Your task to perform on an android device: uninstall "Paramount+ | Peak Streaming" Image 0: 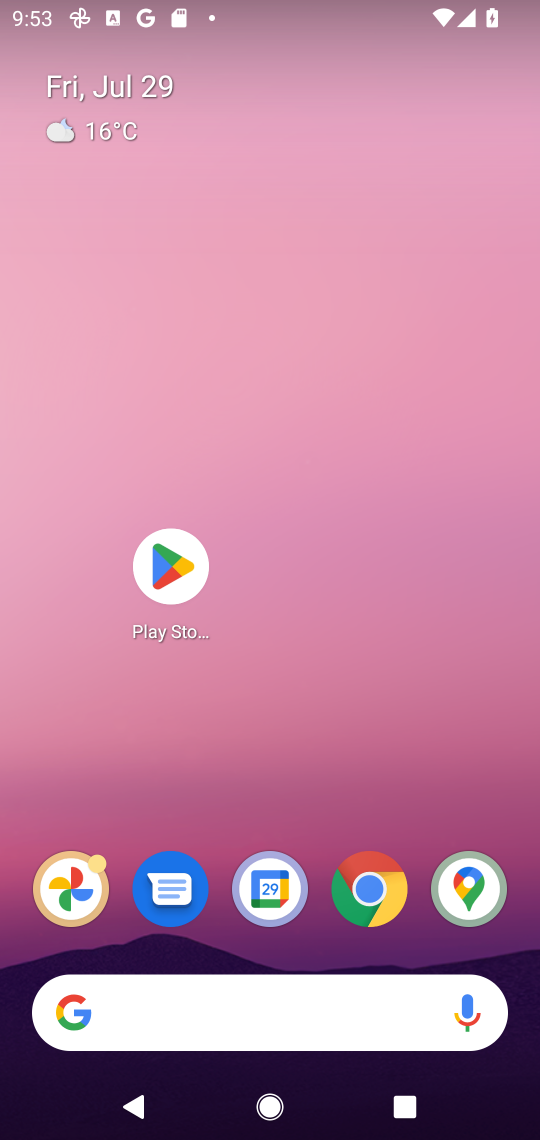
Step 0: press home button
Your task to perform on an android device: uninstall "Paramount+ | Peak Streaming" Image 1: 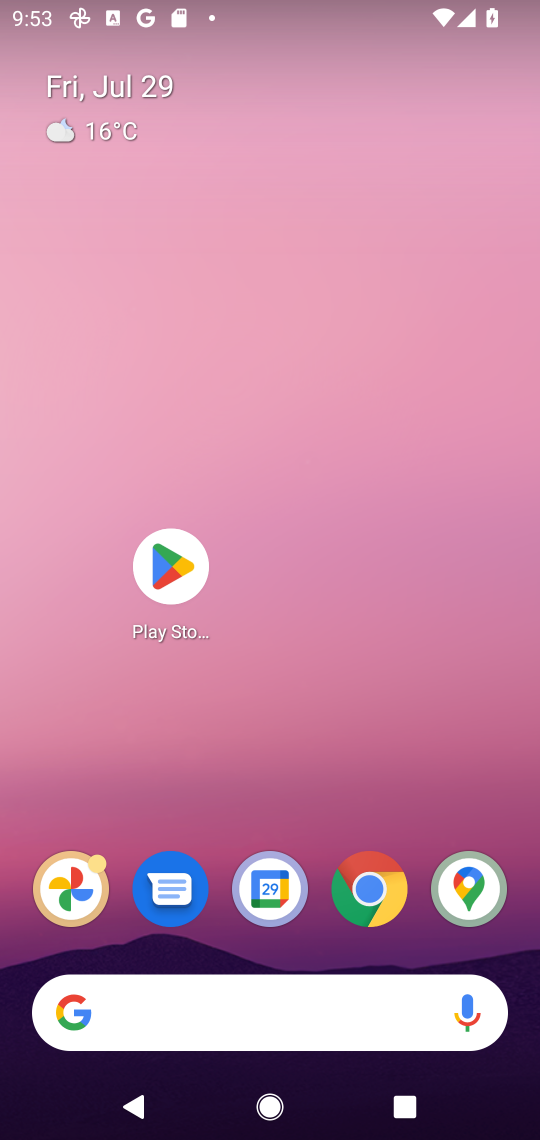
Step 1: click (175, 571)
Your task to perform on an android device: uninstall "Paramount+ | Peak Streaming" Image 2: 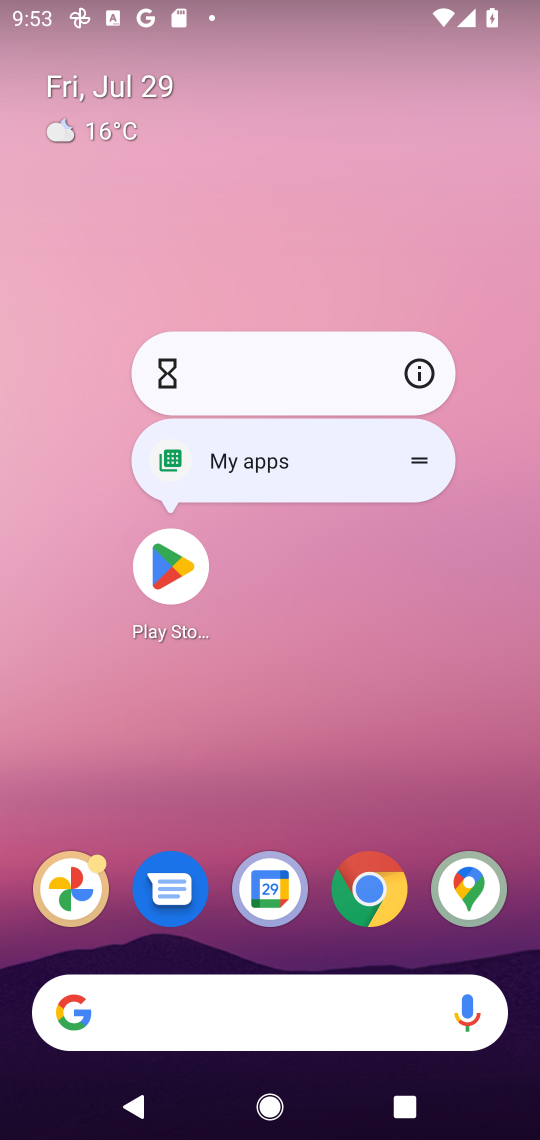
Step 2: click (160, 562)
Your task to perform on an android device: uninstall "Paramount+ | Peak Streaming" Image 3: 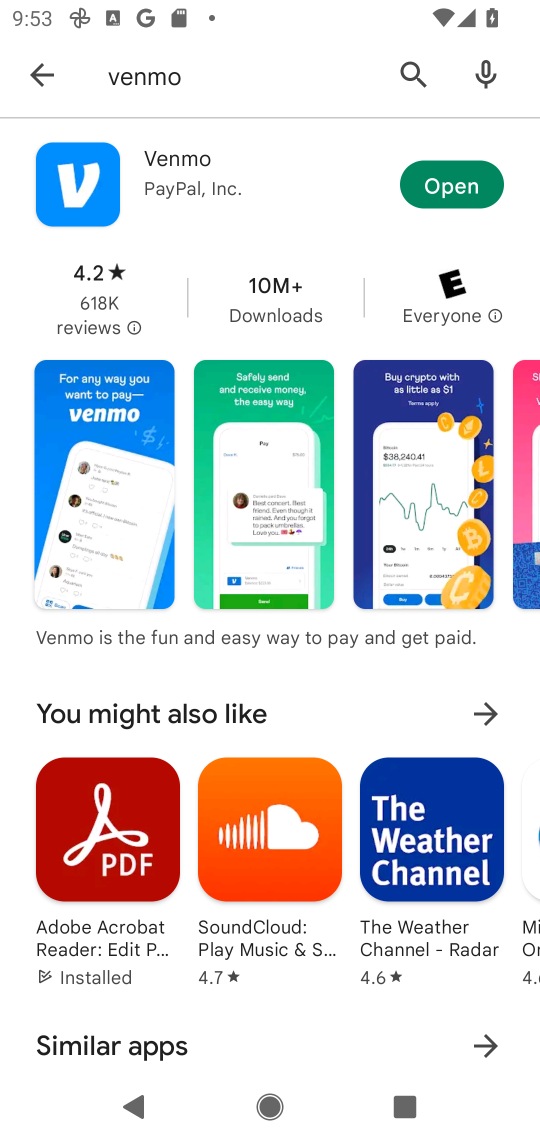
Step 3: click (407, 66)
Your task to perform on an android device: uninstall "Paramount+ | Peak Streaming" Image 4: 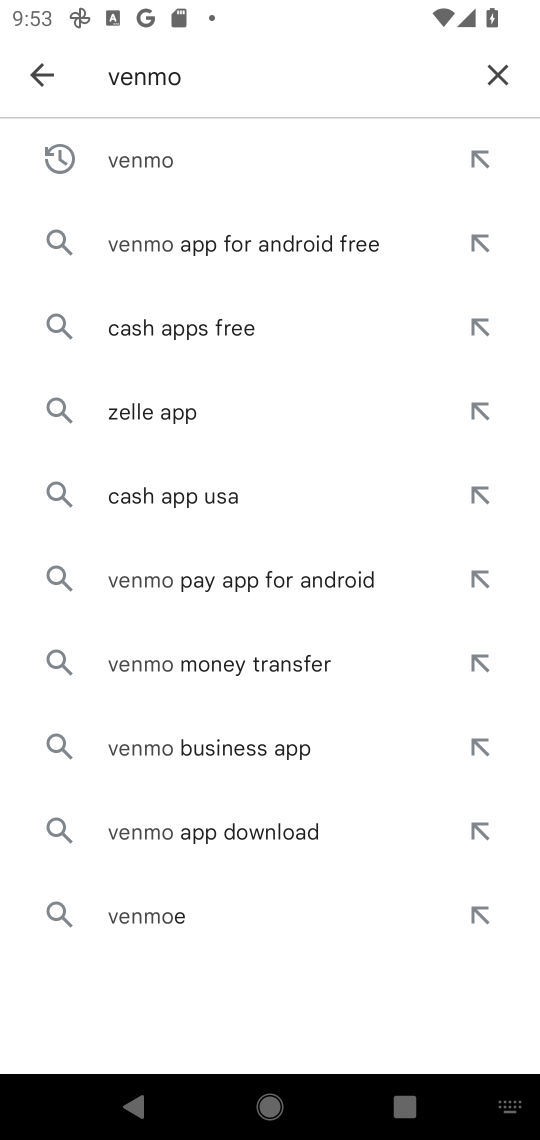
Step 4: click (501, 70)
Your task to perform on an android device: uninstall "Paramount+ | Peak Streaming" Image 5: 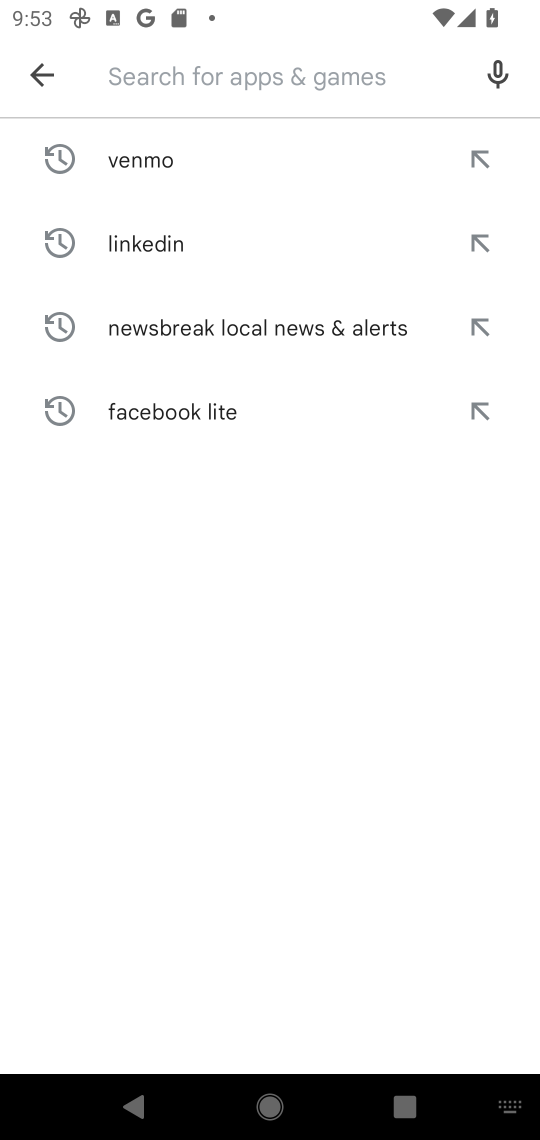
Step 5: type "Paramount+ | Peak Streaming"
Your task to perform on an android device: uninstall "Paramount+ | Peak Streaming" Image 6: 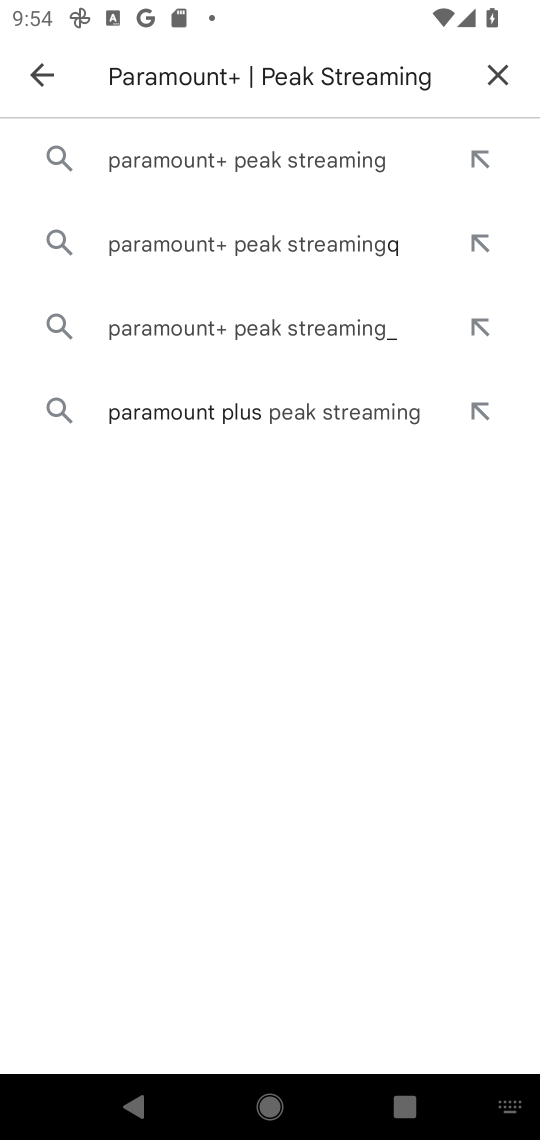
Step 6: click (337, 153)
Your task to perform on an android device: uninstall "Paramount+ | Peak Streaming" Image 7: 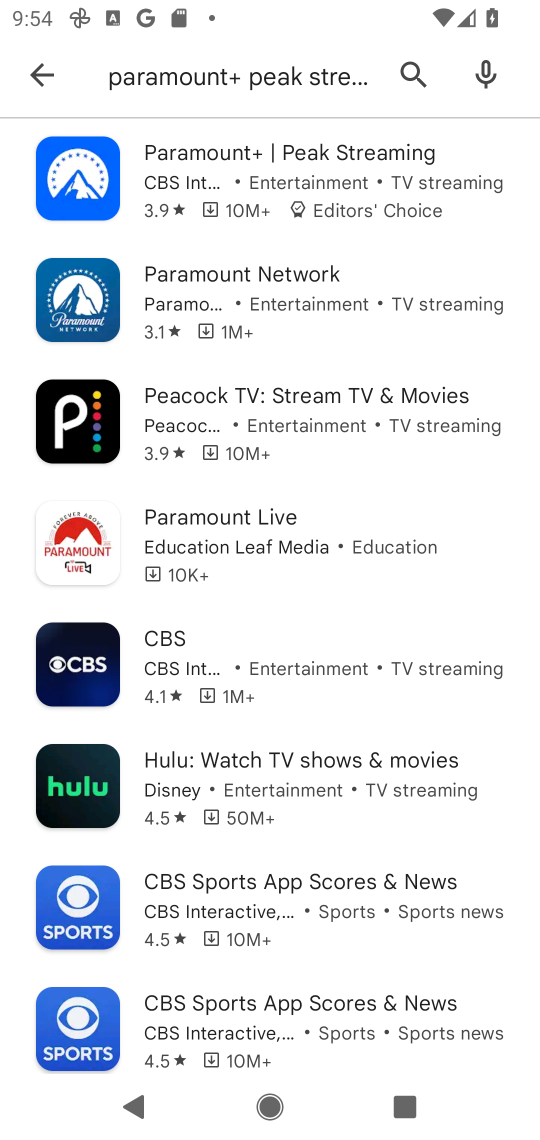
Step 7: click (322, 175)
Your task to perform on an android device: uninstall "Paramount+ | Peak Streaming" Image 8: 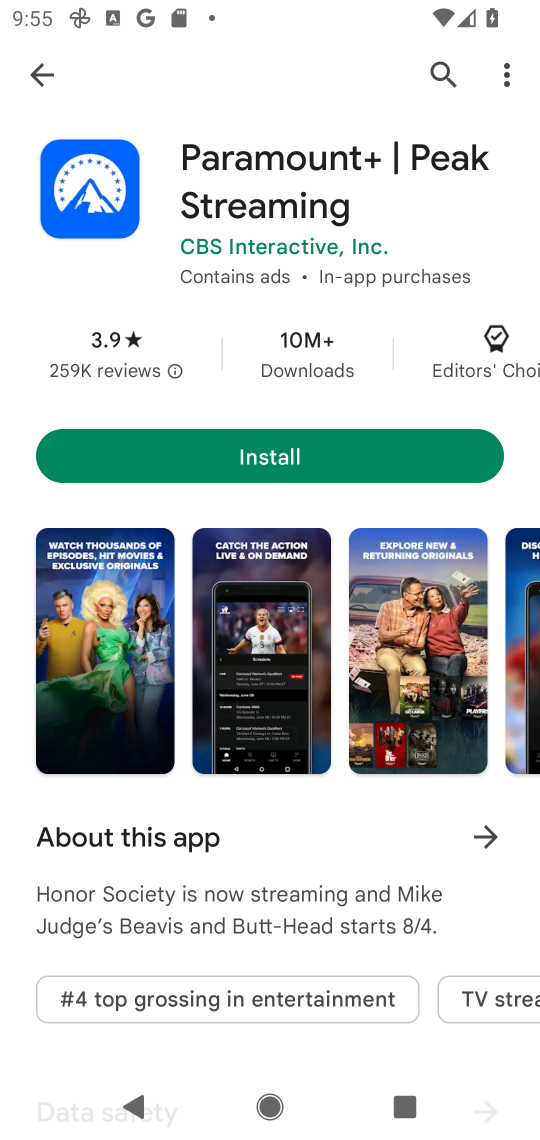
Step 8: task complete